Your task to perform on an android device: What's the weather going to be this weekend? Image 0: 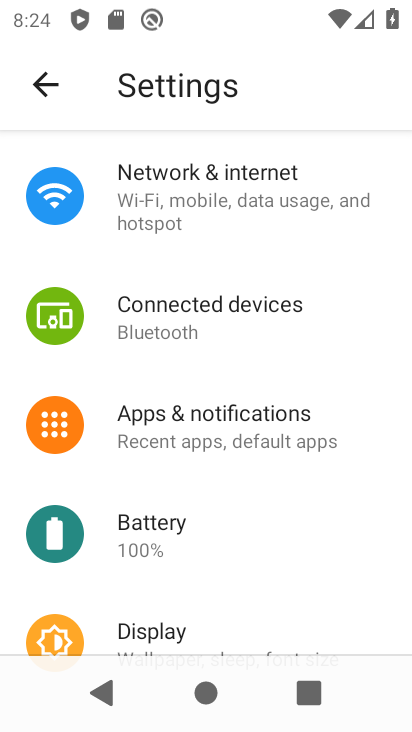
Step 0: press home button
Your task to perform on an android device: What's the weather going to be this weekend? Image 1: 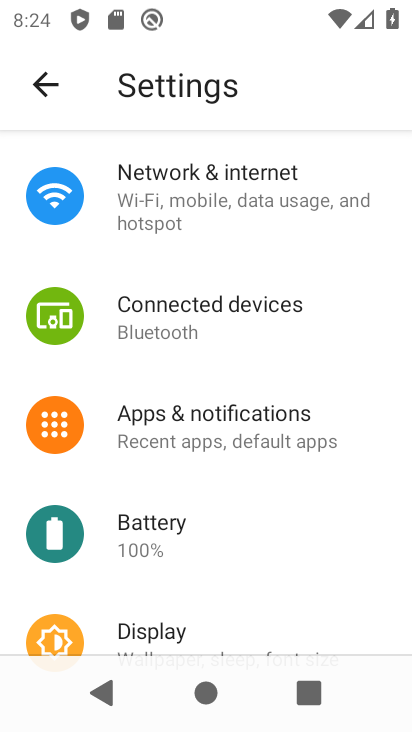
Step 1: press home button
Your task to perform on an android device: What's the weather going to be this weekend? Image 2: 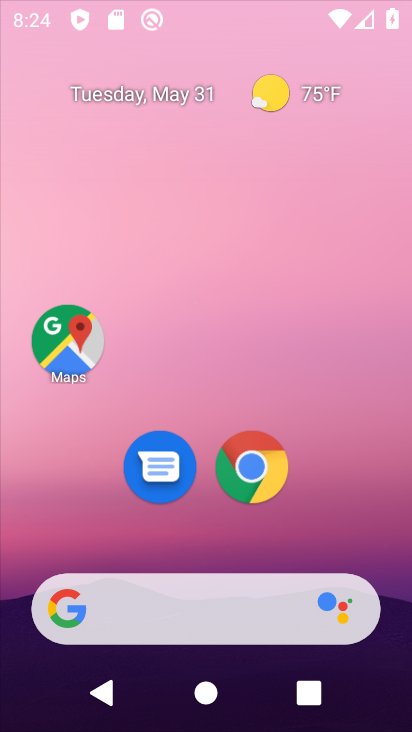
Step 2: press home button
Your task to perform on an android device: What's the weather going to be this weekend? Image 3: 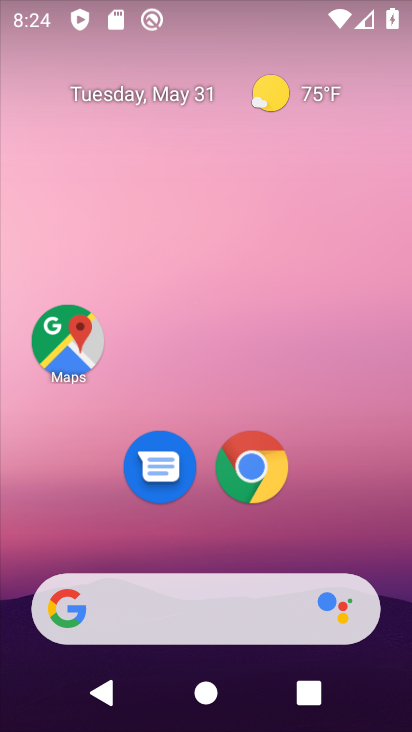
Step 3: drag from (203, 542) to (242, 17)
Your task to perform on an android device: What's the weather going to be this weekend? Image 4: 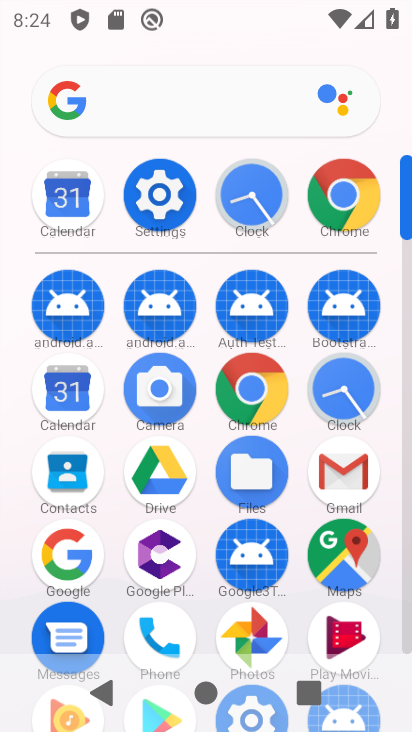
Step 4: click (173, 95)
Your task to perform on an android device: What's the weather going to be this weekend? Image 5: 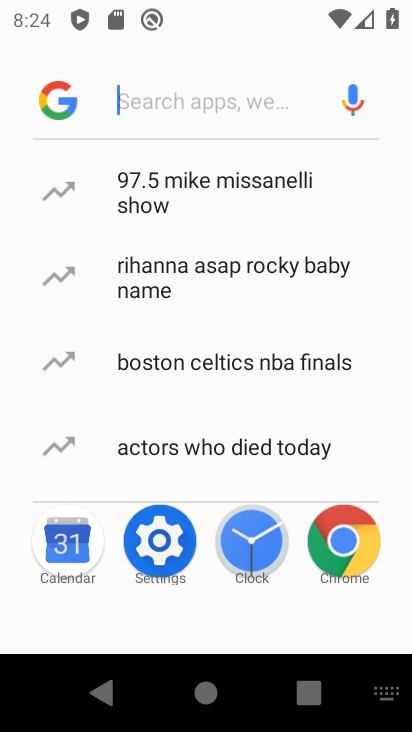
Step 5: type "What's the weather going to be this weekend?"
Your task to perform on an android device: What's the weather going to be this weekend? Image 6: 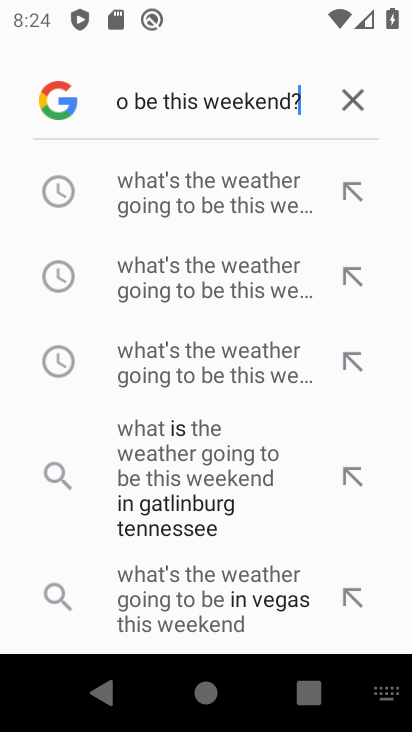
Step 6: type ""
Your task to perform on an android device: What's the weather going to be this weekend? Image 7: 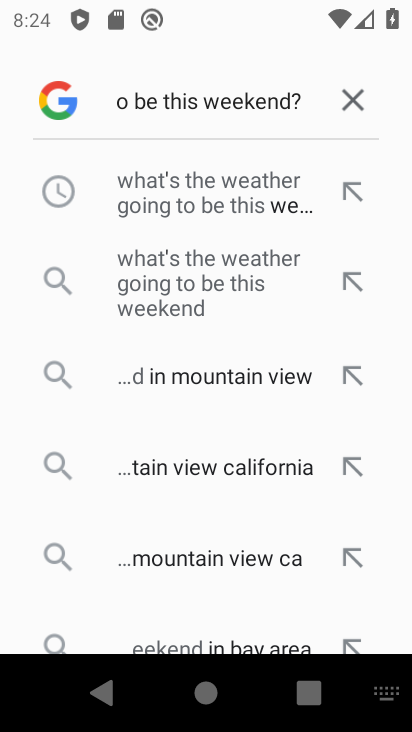
Step 7: click (112, 191)
Your task to perform on an android device: What's the weather going to be this weekend? Image 8: 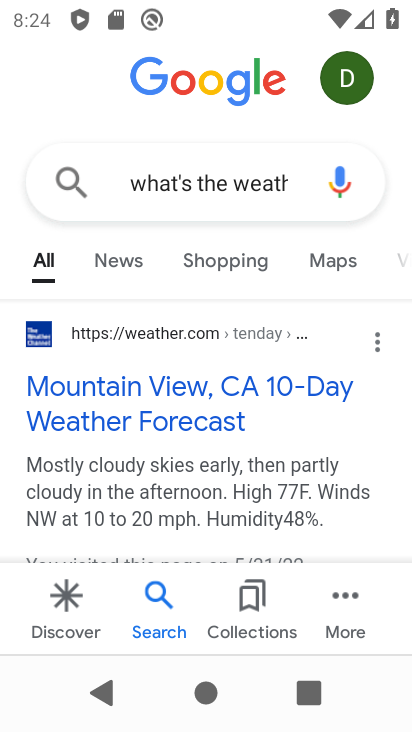
Step 8: task complete